Your task to perform on an android device: Go to display settings Image 0: 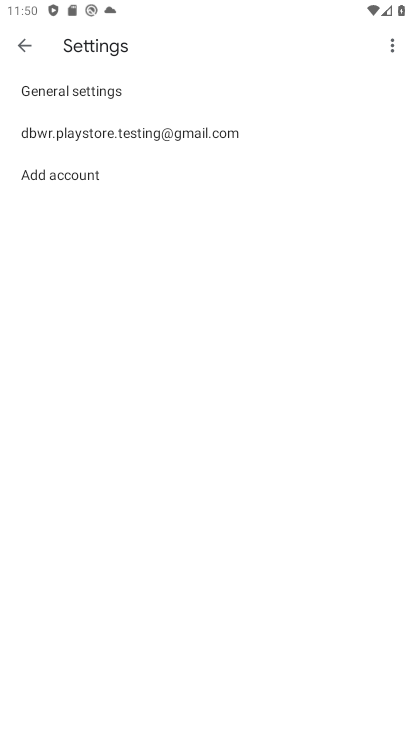
Step 0: press home button
Your task to perform on an android device: Go to display settings Image 1: 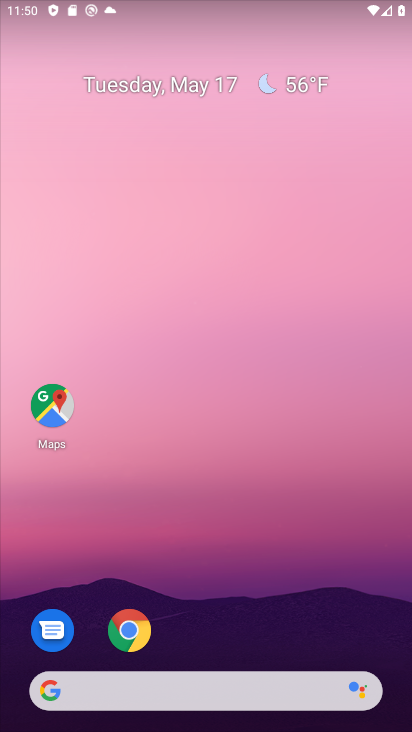
Step 1: drag from (244, 727) to (219, 130)
Your task to perform on an android device: Go to display settings Image 2: 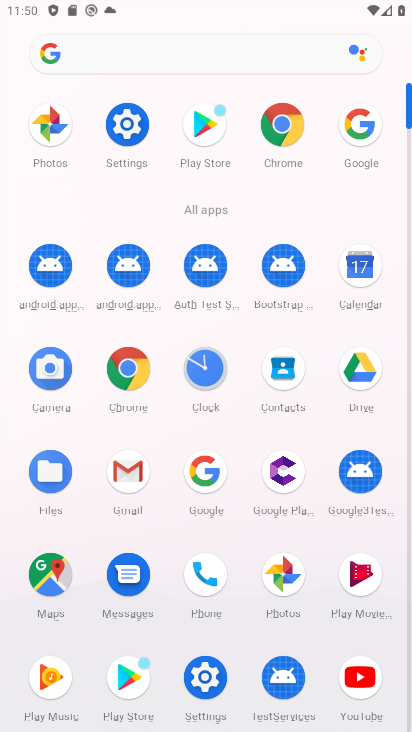
Step 2: click (127, 116)
Your task to perform on an android device: Go to display settings Image 3: 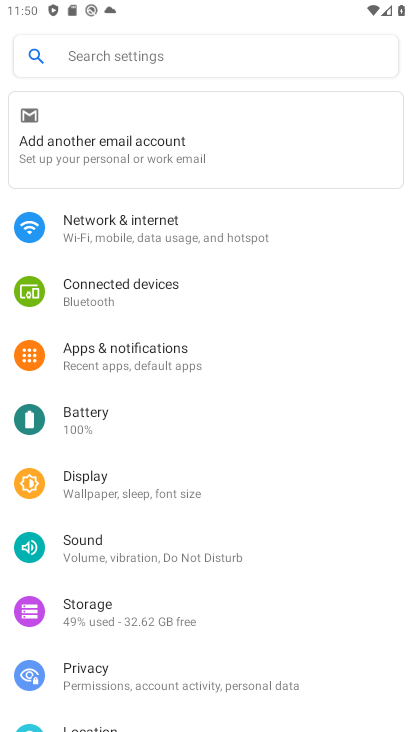
Step 3: click (91, 482)
Your task to perform on an android device: Go to display settings Image 4: 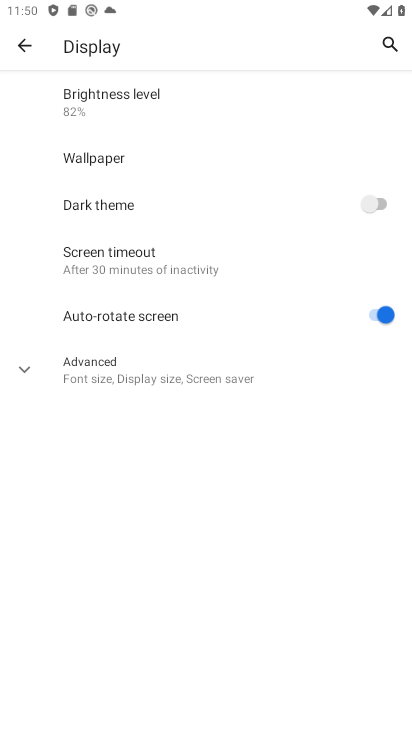
Step 4: task complete